Your task to perform on an android device: Toggle the flashlight Image 0: 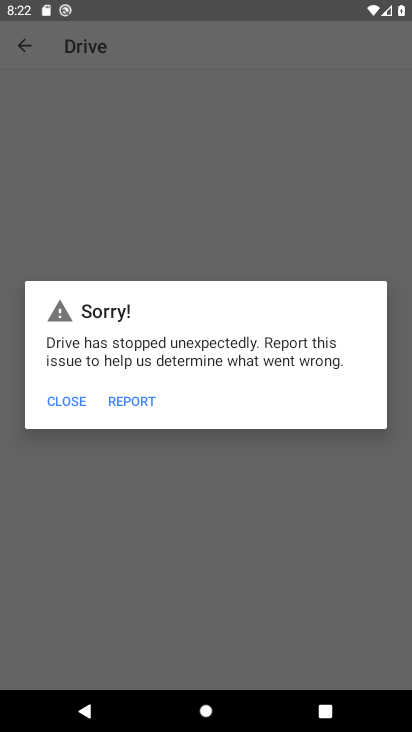
Step 0: press home button
Your task to perform on an android device: Toggle the flashlight Image 1: 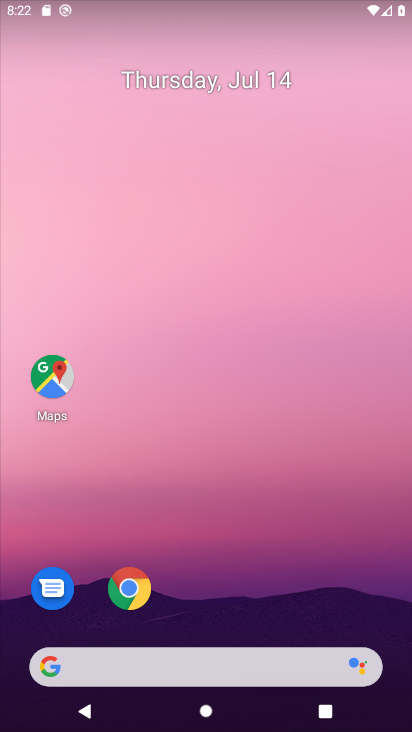
Step 1: task complete